Your task to perform on an android device: What is the recent news? Image 0: 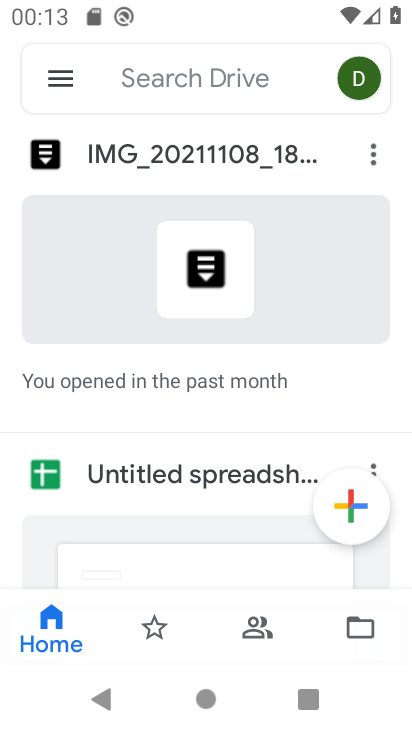
Step 0: press home button
Your task to perform on an android device: What is the recent news? Image 1: 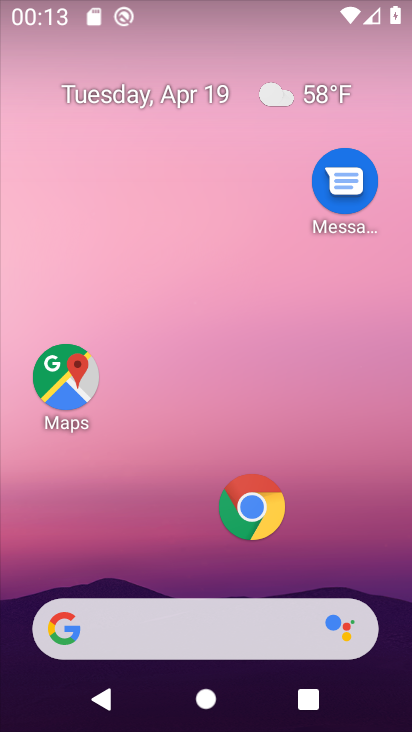
Step 1: click (187, 629)
Your task to perform on an android device: What is the recent news? Image 2: 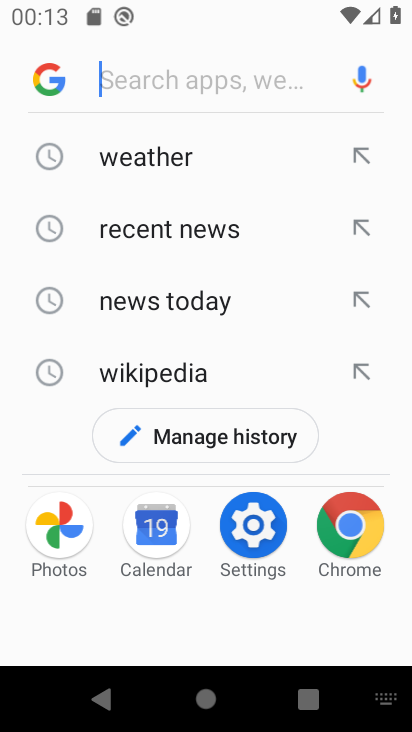
Step 2: type "recent news"
Your task to perform on an android device: What is the recent news? Image 3: 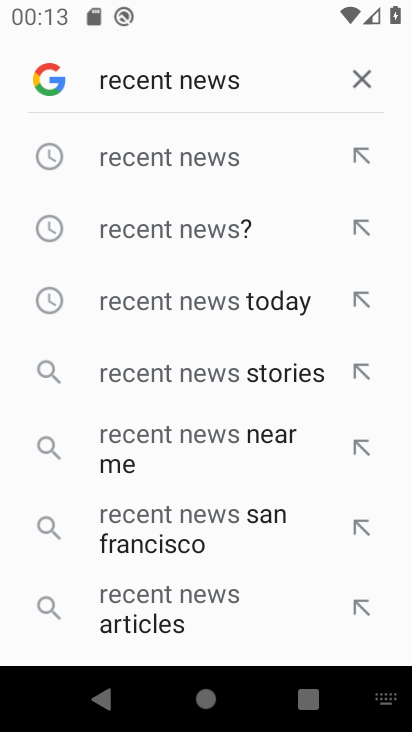
Step 3: click (170, 156)
Your task to perform on an android device: What is the recent news? Image 4: 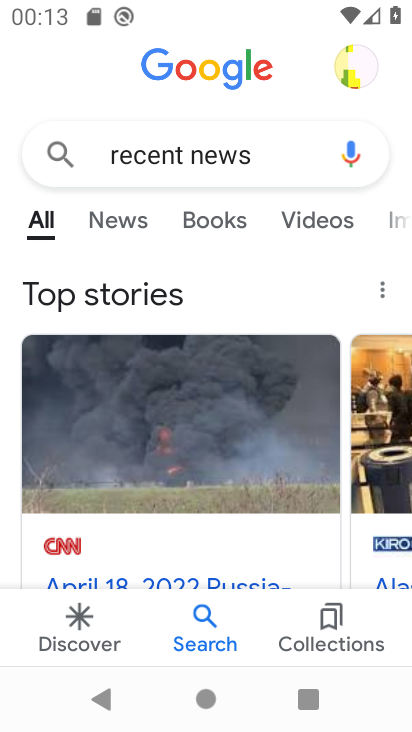
Step 4: task complete